Your task to perform on an android device: Open settings Image 0: 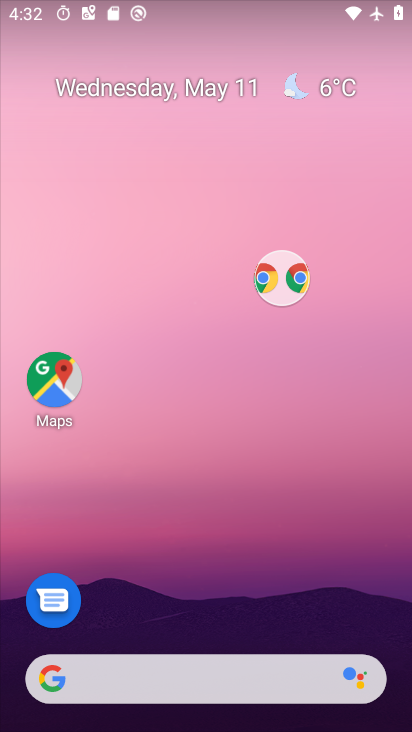
Step 0: drag from (279, 644) to (225, 123)
Your task to perform on an android device: Open settings Image 1: 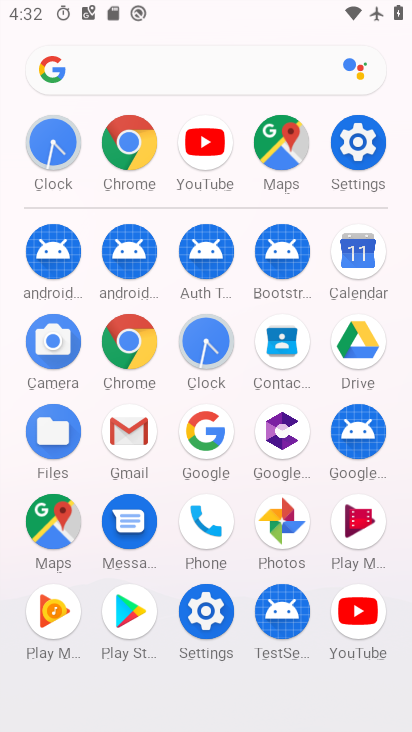
Step 1: click (337, 151)
Your task to perform on an android device: Open settings Image 2: 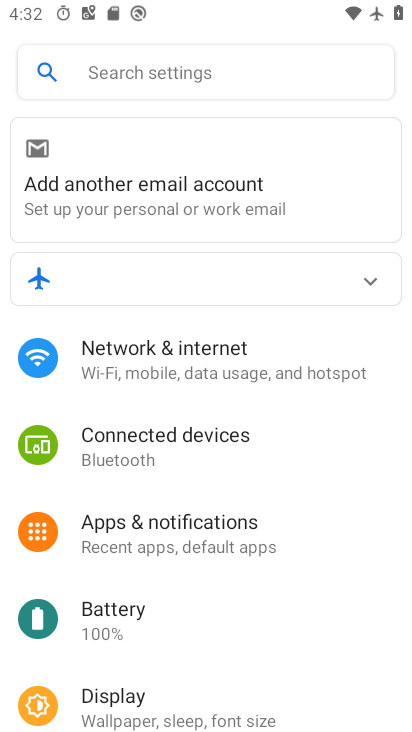
Step 2: task complete